Your task to perform on an android device: Open Google Maps and go to "Timeline" Image 0: 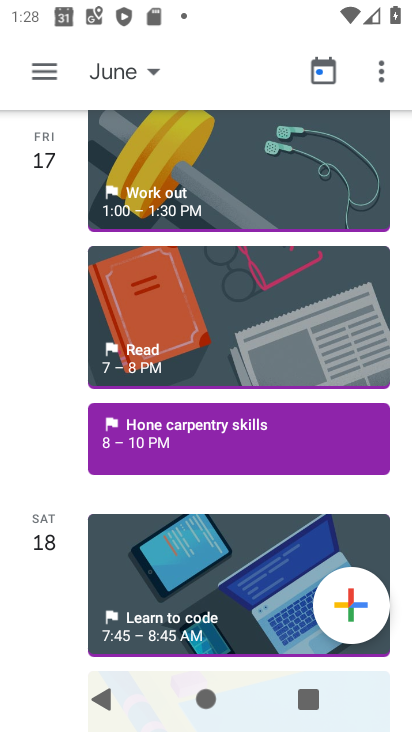
Step 0: press home button
Your task to perform on an android device: Open Google Maps and go to "Timeline" Image 1: 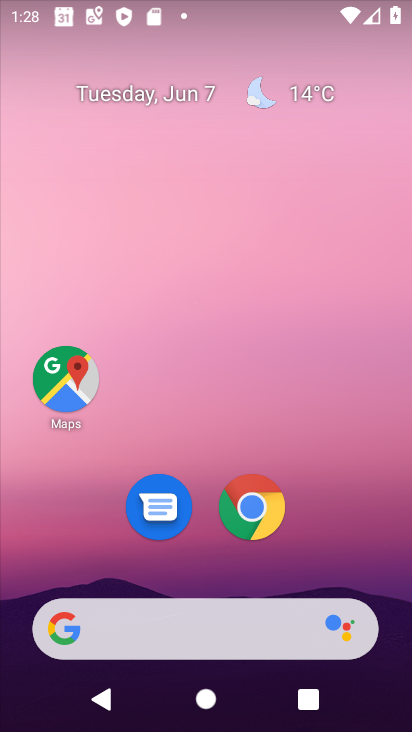
Step 1: click (71, 380)
Your task to perform on an android device: Open Google Maps and go to "Timeline" Image 2: 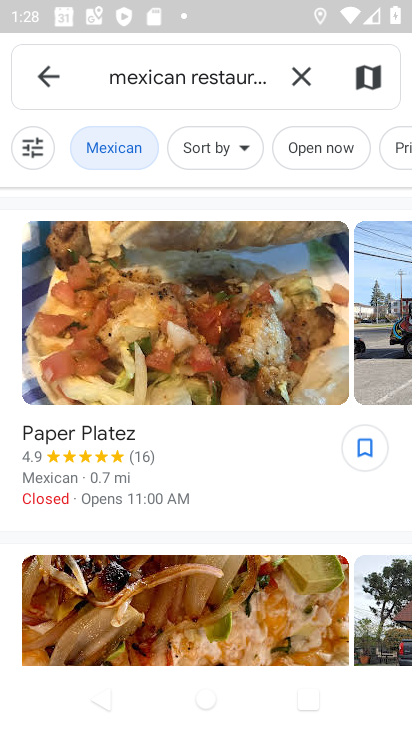
Step 2: click (297, 70)
Your task to perform on an android device: Open Google Maps and go to "Timeline" Image 3: 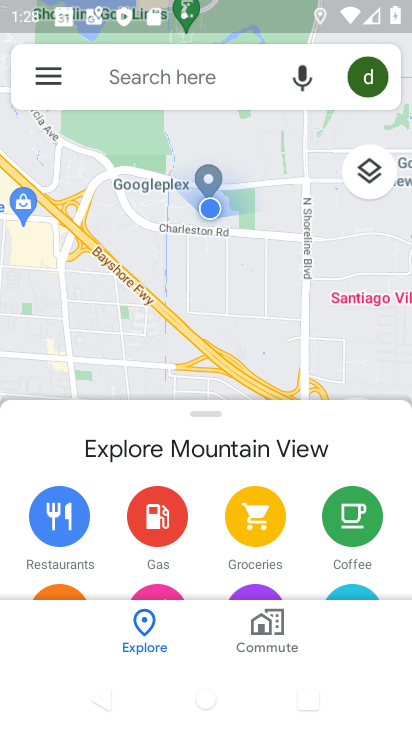
Step 3: click (52, 80)
Your task to perform on an android device: Open Google Maps and go to "Timeline" Image 4: 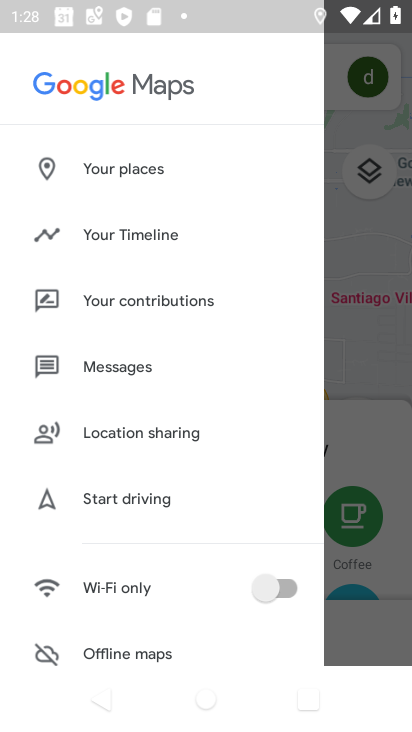
Step 4: click (136, 225)
Your task to perform on an android device: Open Google Maps and go to "Timeline" Image 5: 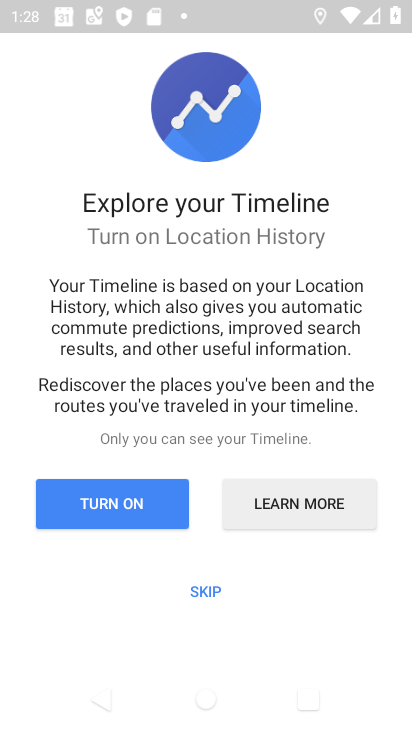
Step 5: click (207, 587)
Your task to perform on an android device: Open Google Maps and go to "Timeline" Image 6: 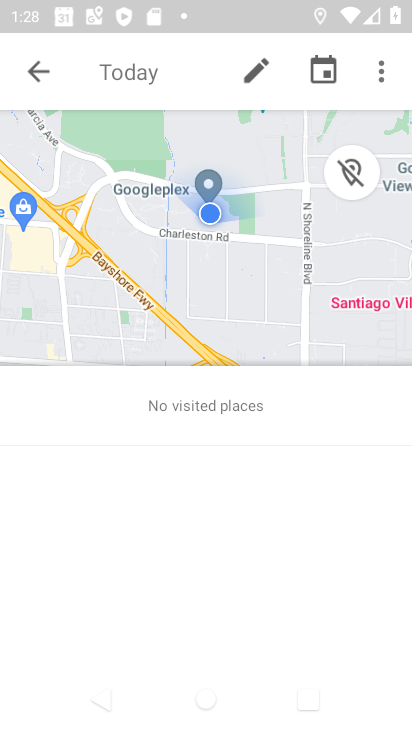
Step 6: task complete